Your task to perform on an android device: install app "Spotify: Music and Podcasts" Image 0: 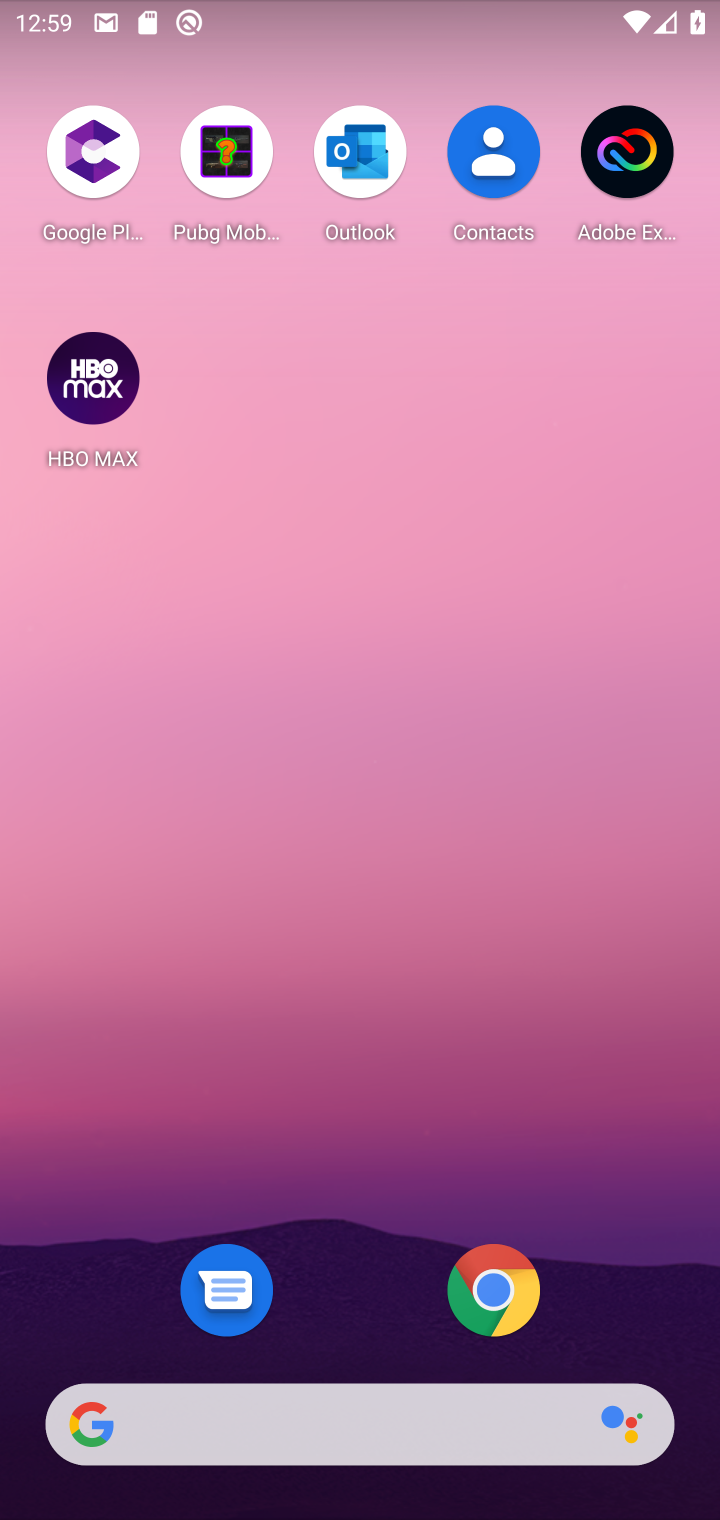
Step 0: press home button
Your task to perform on an android device: install app "Spotify: Music and Podcasts" Image 1: 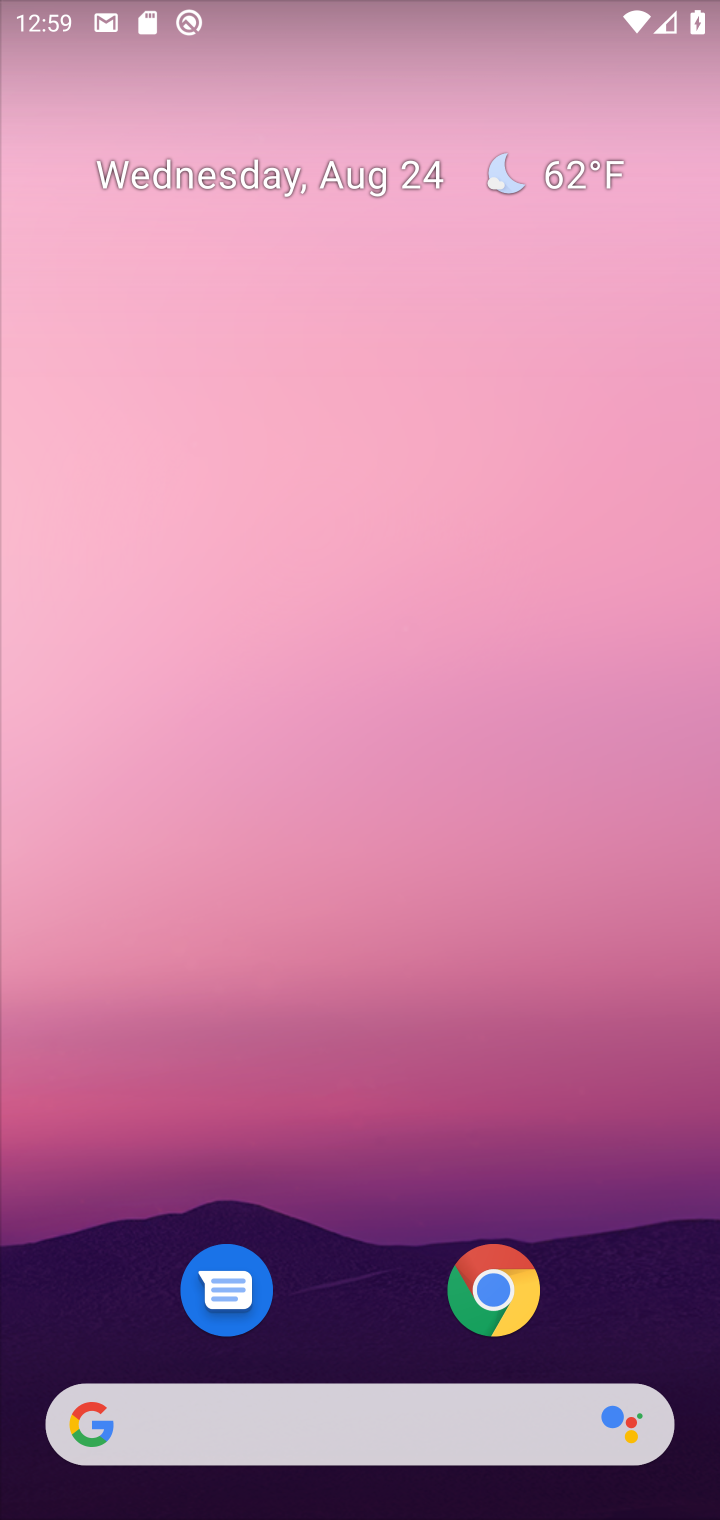
Step 1: drag from (331, 368) to (60, 681)
Your task to perform on an android device: install app "Spotify: Music and Podcasts" Image 2: 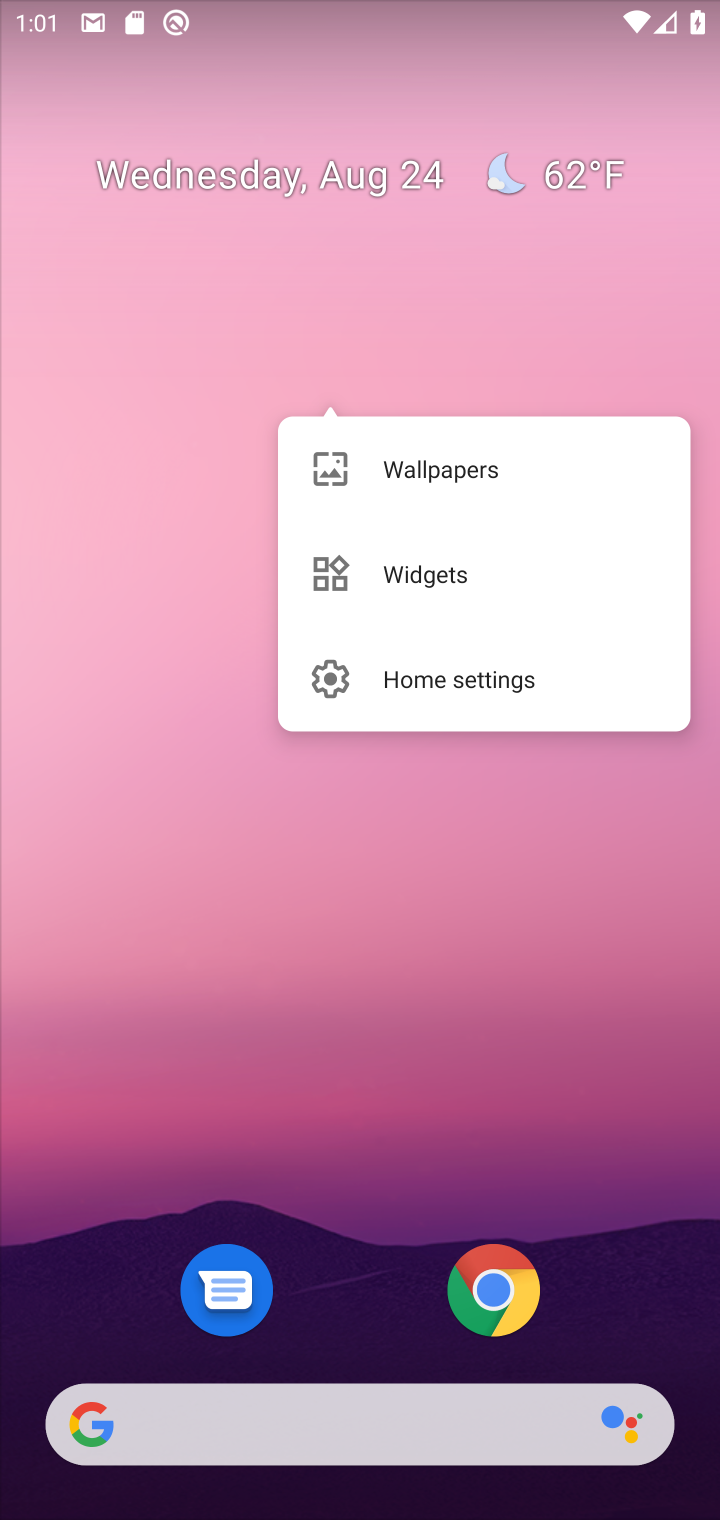
Step 2: drag from (341, 1219) to (377, 180)
Your task to perform on an android device: install app "Spotify: Music and Podcasts" Image 3: 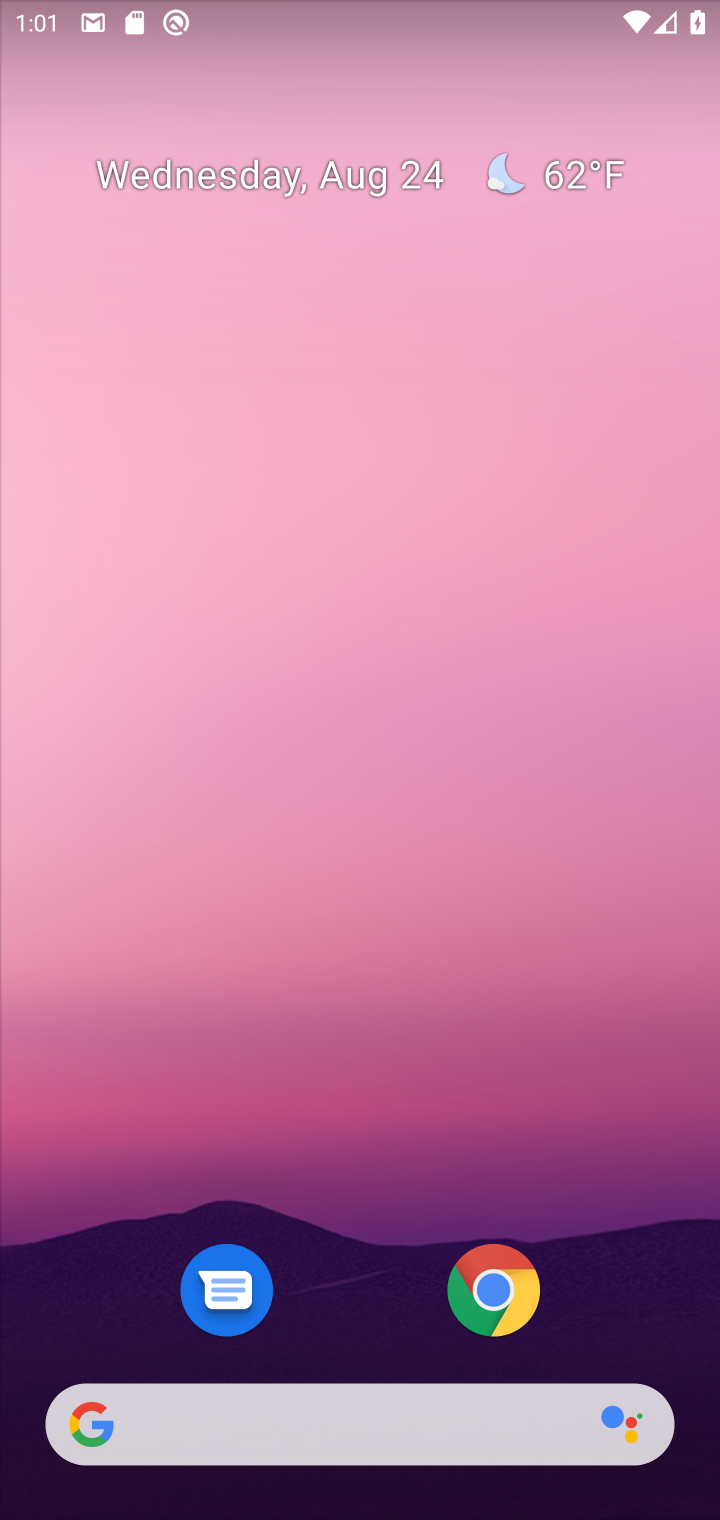
Step 3: drag from (355, 1313) to (441, 36)
Your task to perform on an android device: install app "Spotify: Music and Podcasts" Image 4: 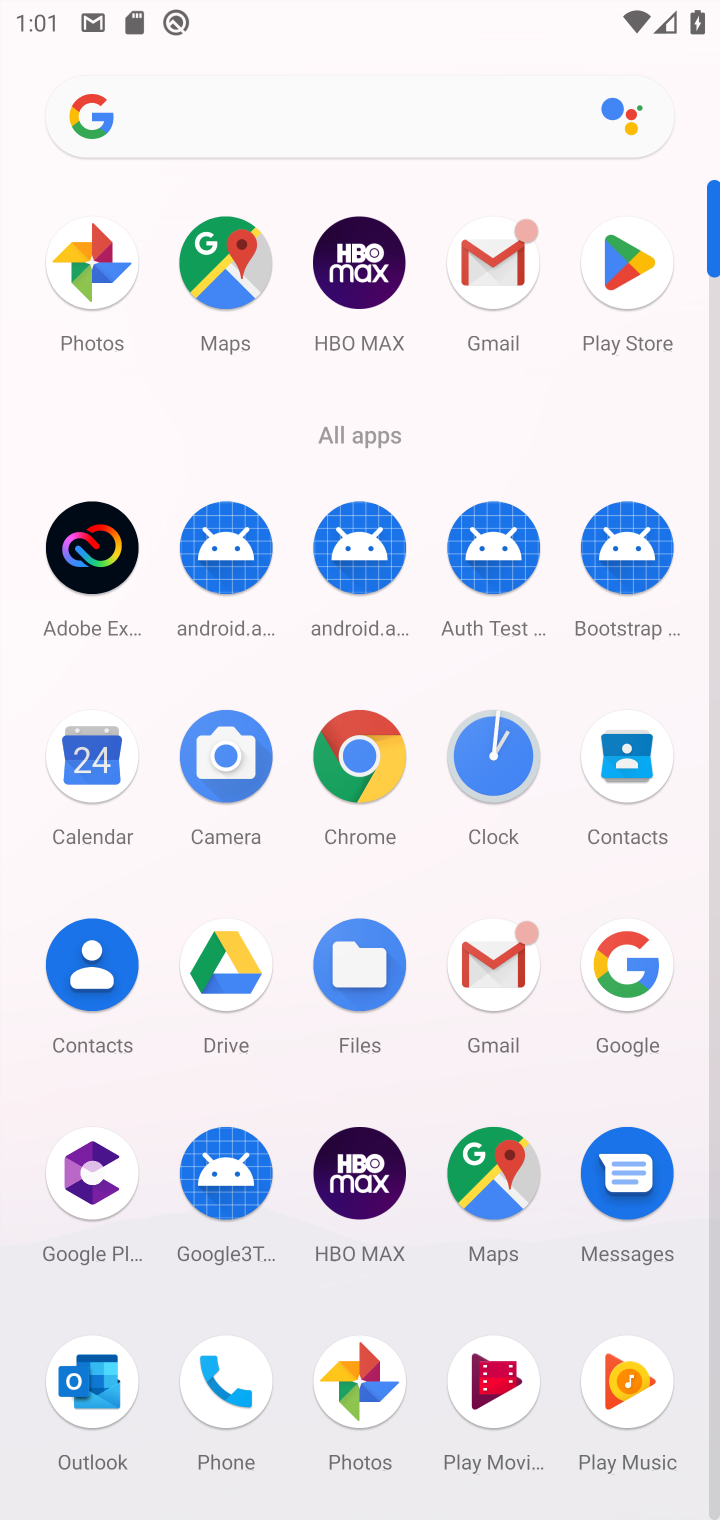
Step 4: click (636, 248)
Your task to perform on an android device: install app "Spotify: Music and Podcasts" Image 5: 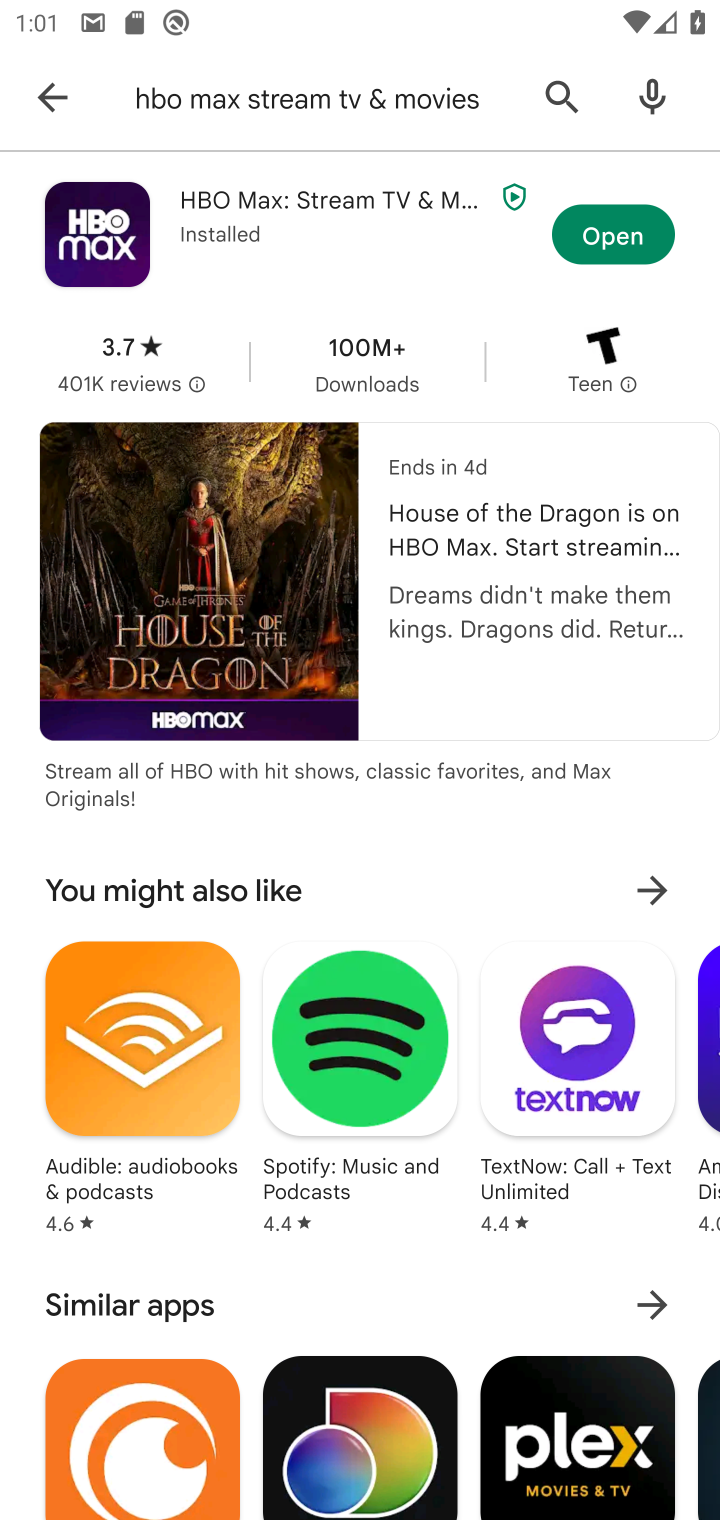
Step 5: click (48, 92)
Your task to perform on an android device: install app "Spotify: Music and Podcasts" Image 6: 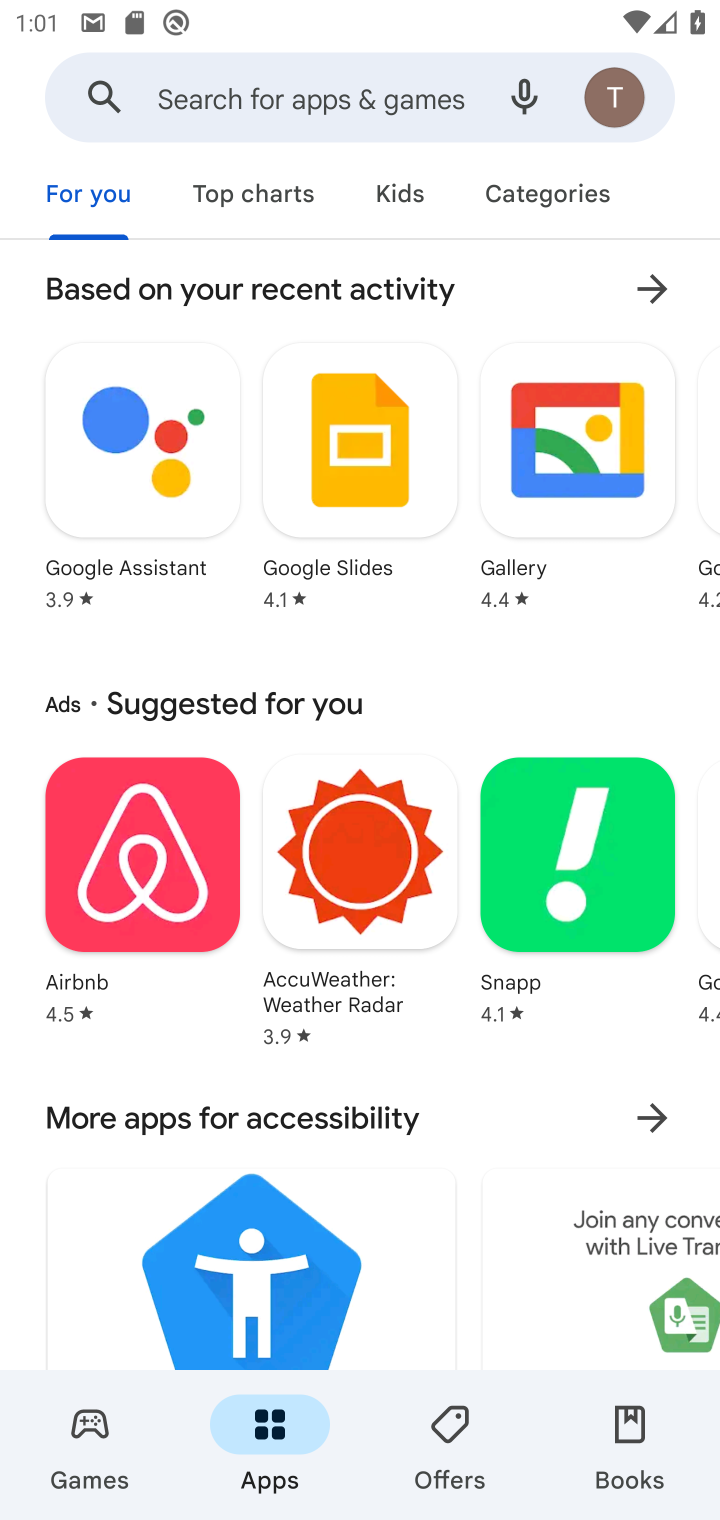
Step 6: click (388, 98)
Your task to perform on an android device: install app "Spotify: Music and Podcasts" Image 7: 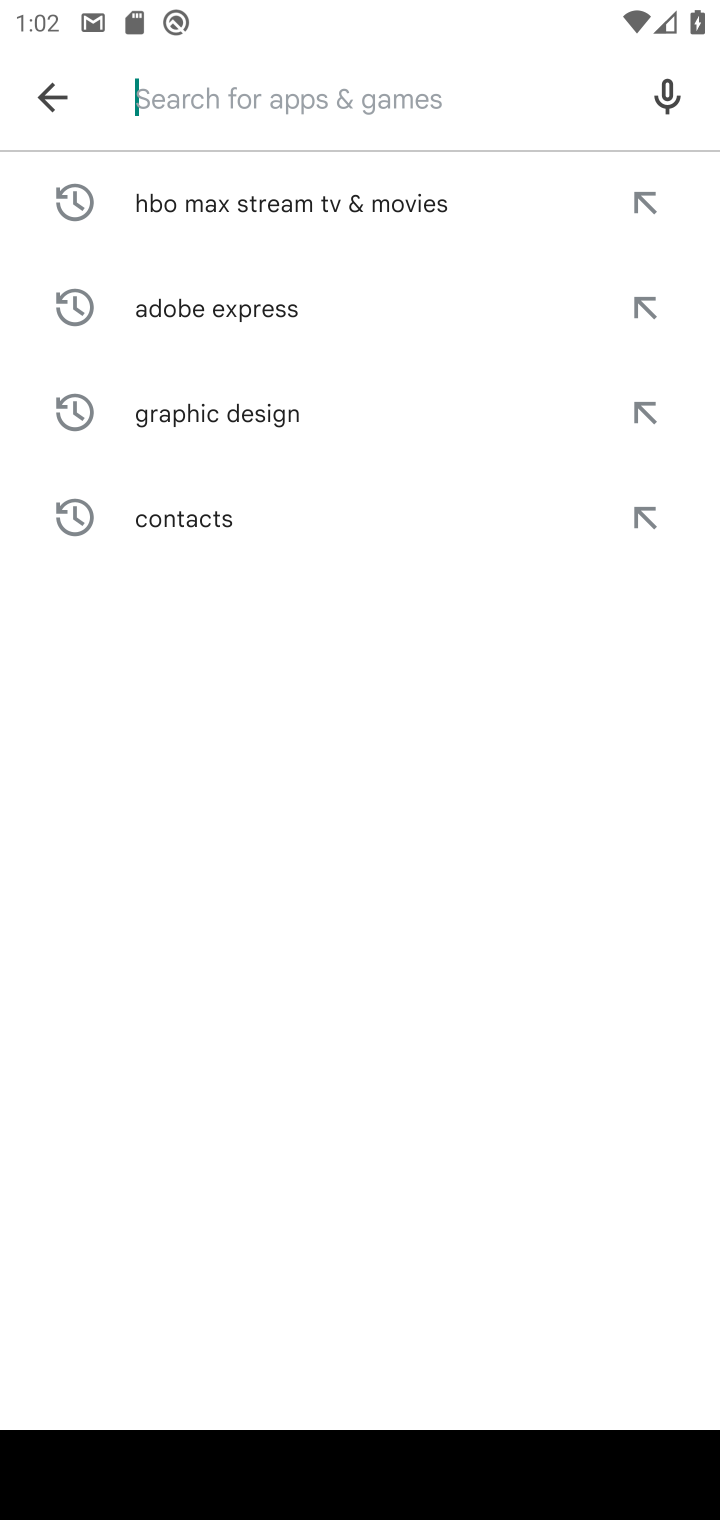
Step 7: type "Spotify"
Your task to perform on an android device: install app "Spotify: Music and Podcasts" Image 8: 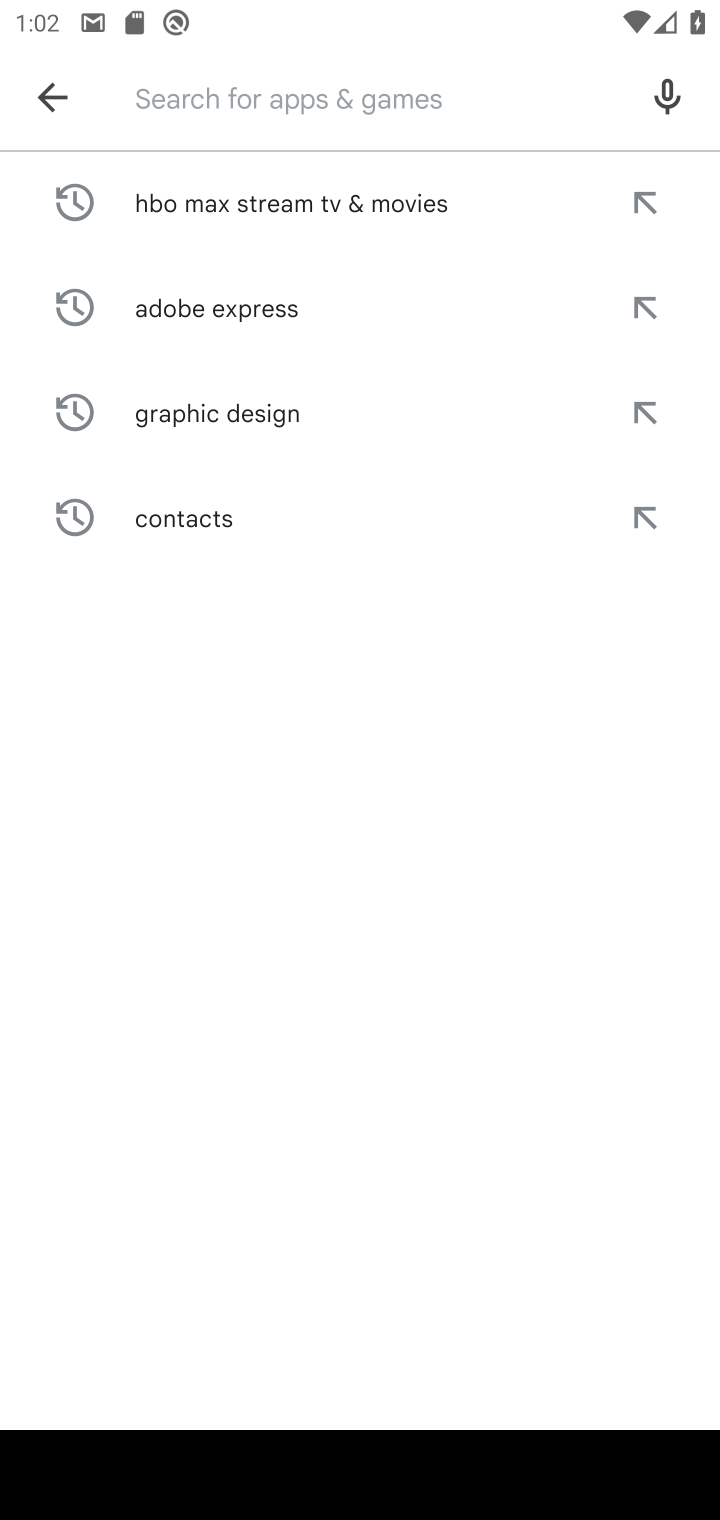
Step 8: click (42, 97)
Your task to perform on an android device: install app "Spotify: Music and Podcasts" Image 9: 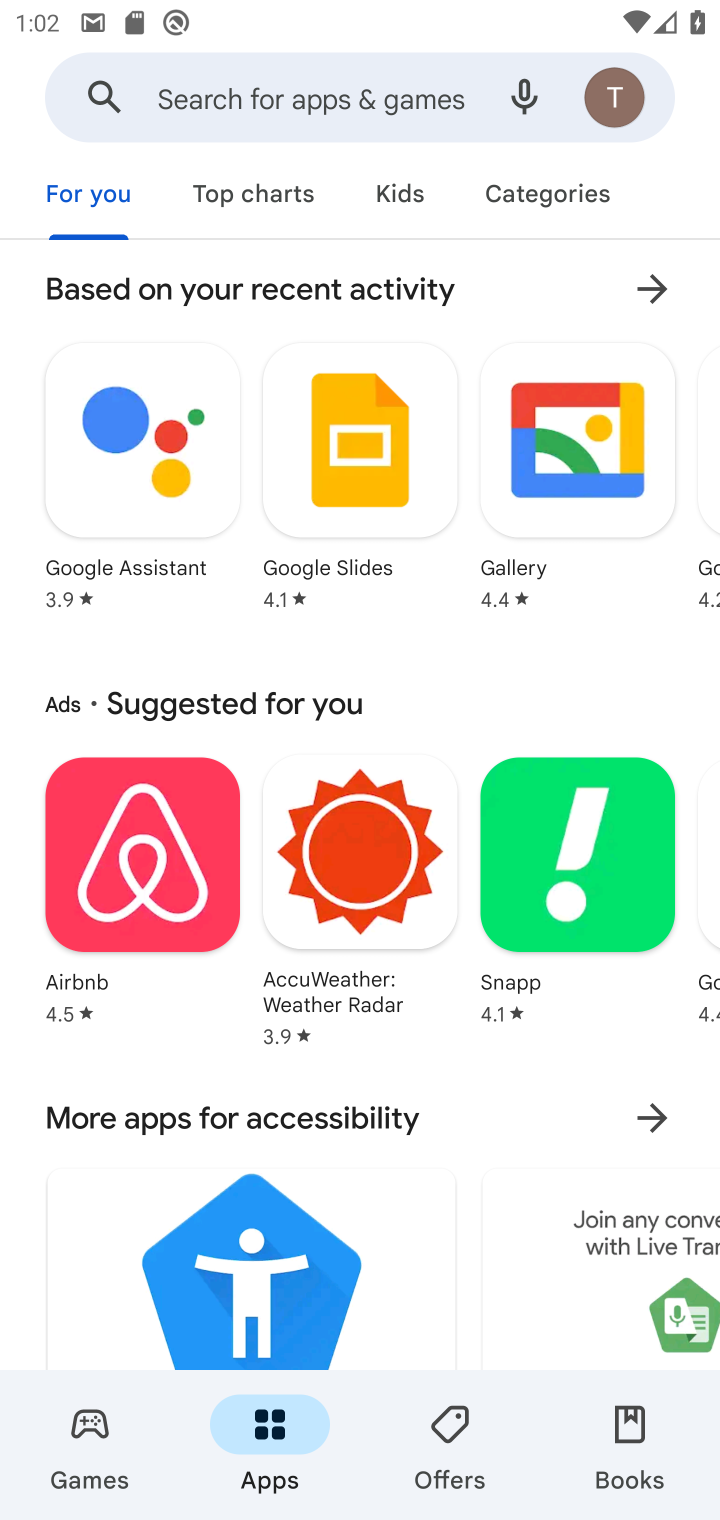
Step 9: click (364, 83)
Your task to perform on an android device: install app "Spotify: Music and Podcasts" Image 10: 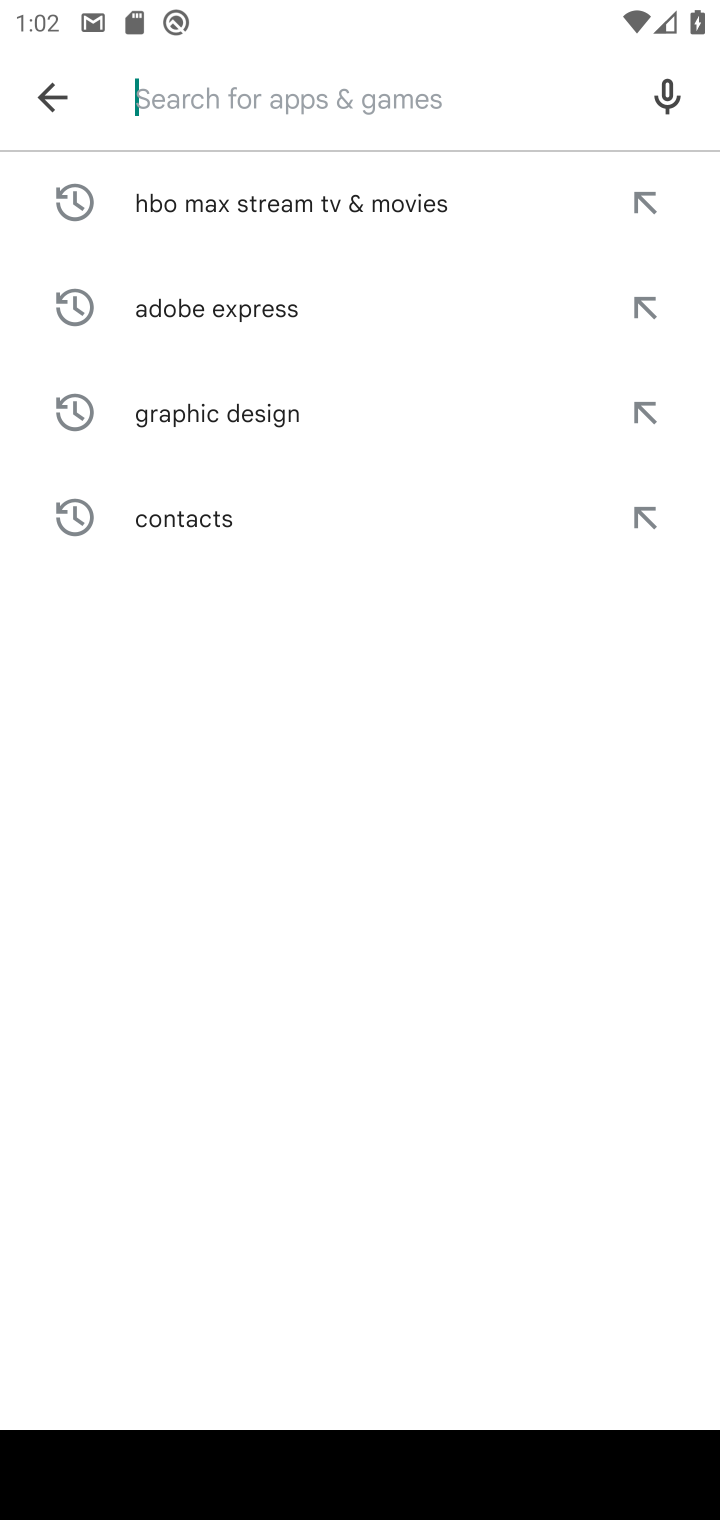
Step 10: type "Spotify"
Your task to perform on an android device: install app "Spotify: Music and Podcasts" Image 11: 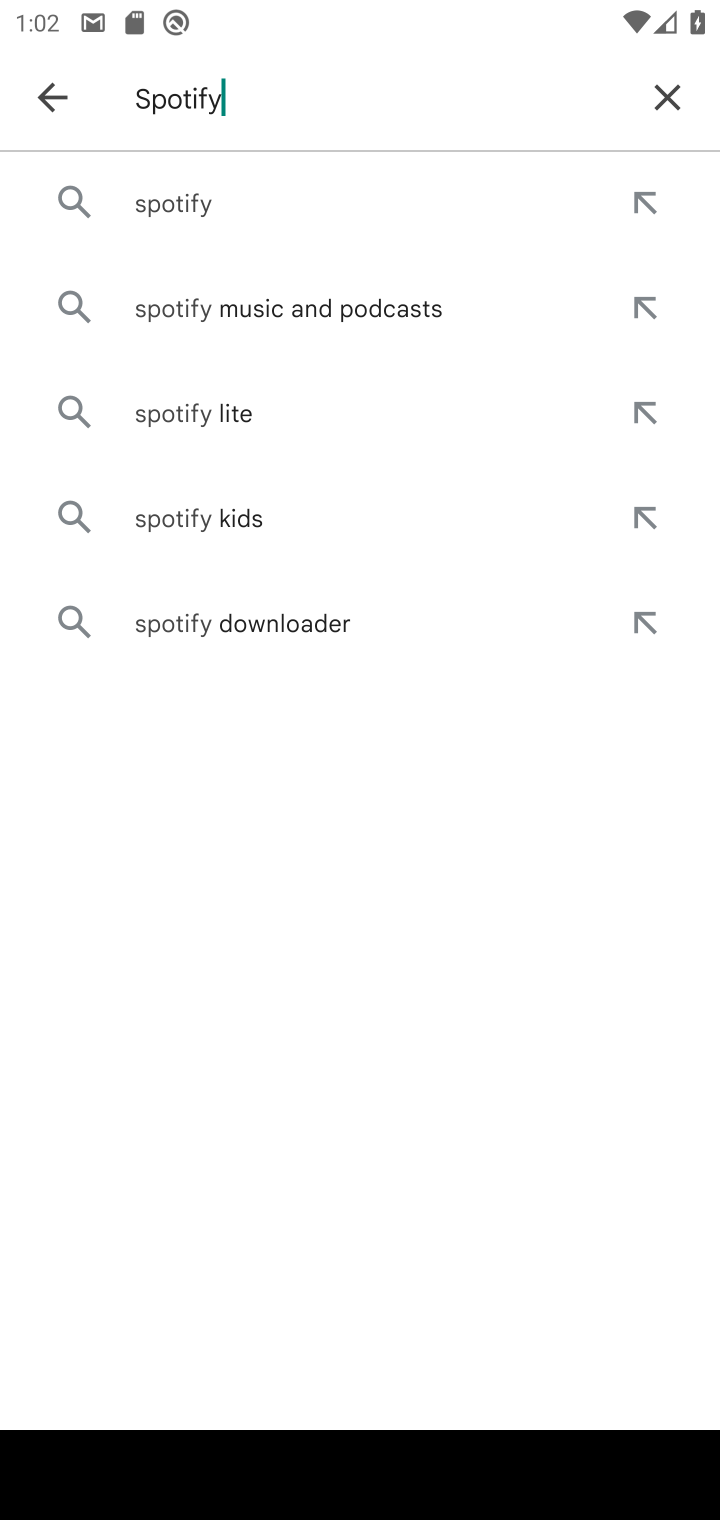
Step 11: click (167, 193)
Your task to perform on an android device: install app "Spotify: Music and Podcasts" Image 12: 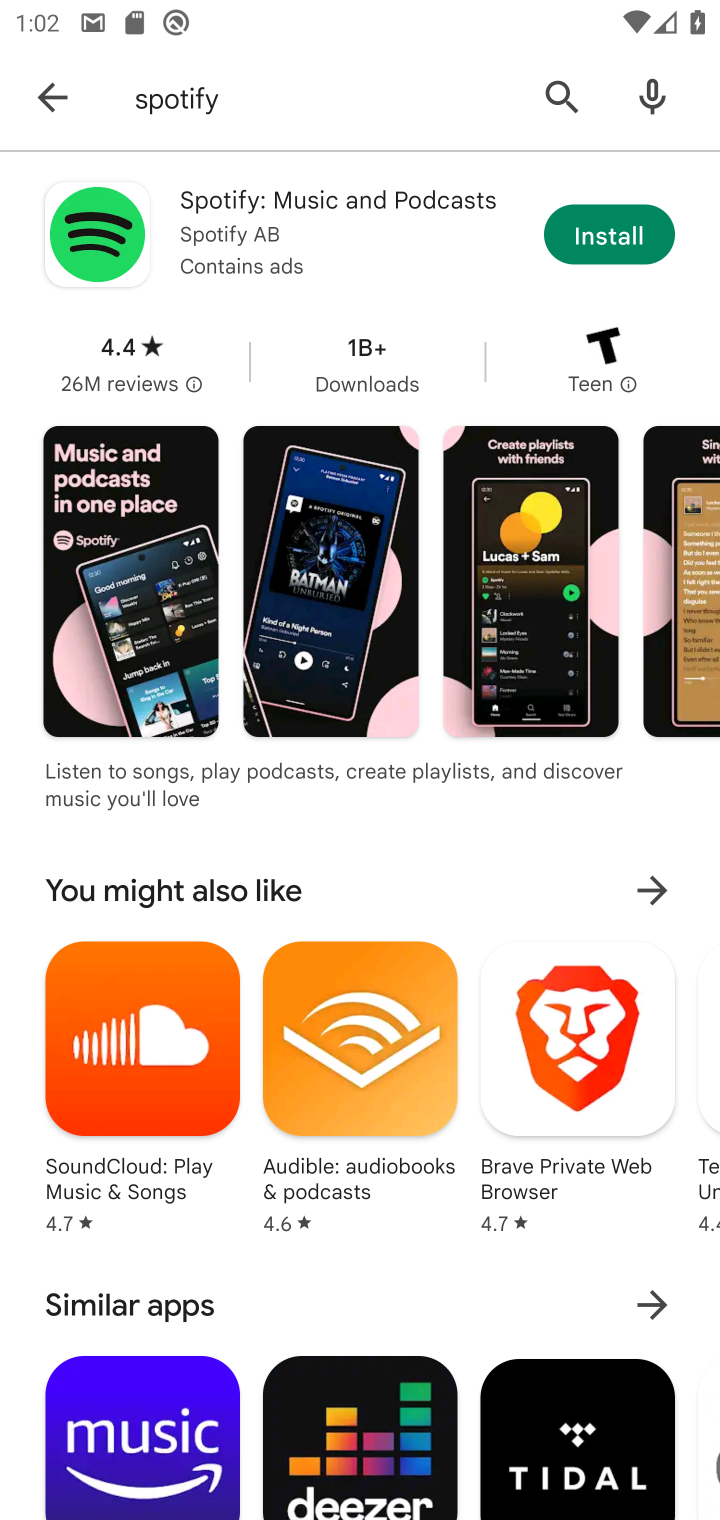
Step 12: click (597, 241)
Your task to perform on an android device: install app "Spotify: Music and Podcasts" Image 13: 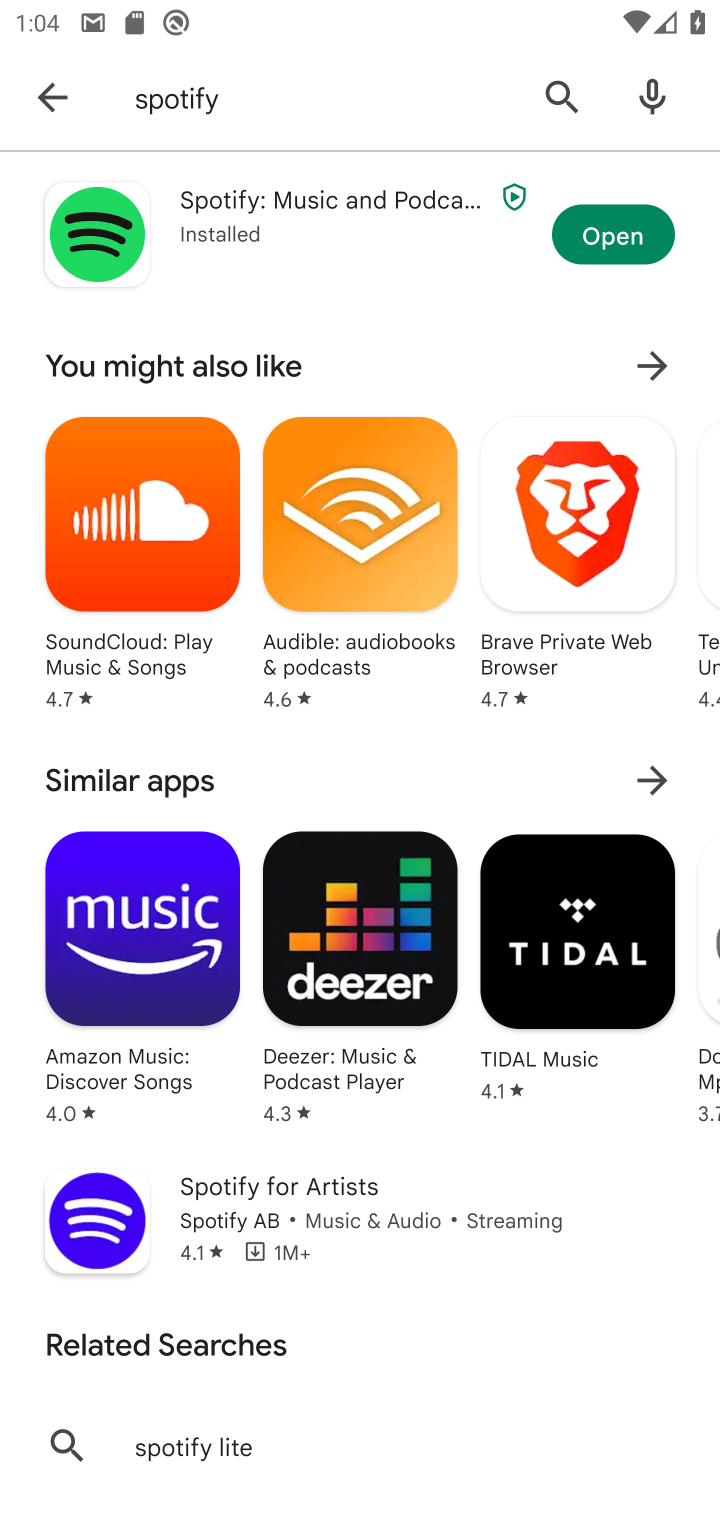
Step 13: click (597, 241)
Your task to perform on an android device: install app "Spotify: Music and Podcasts" Image 14: 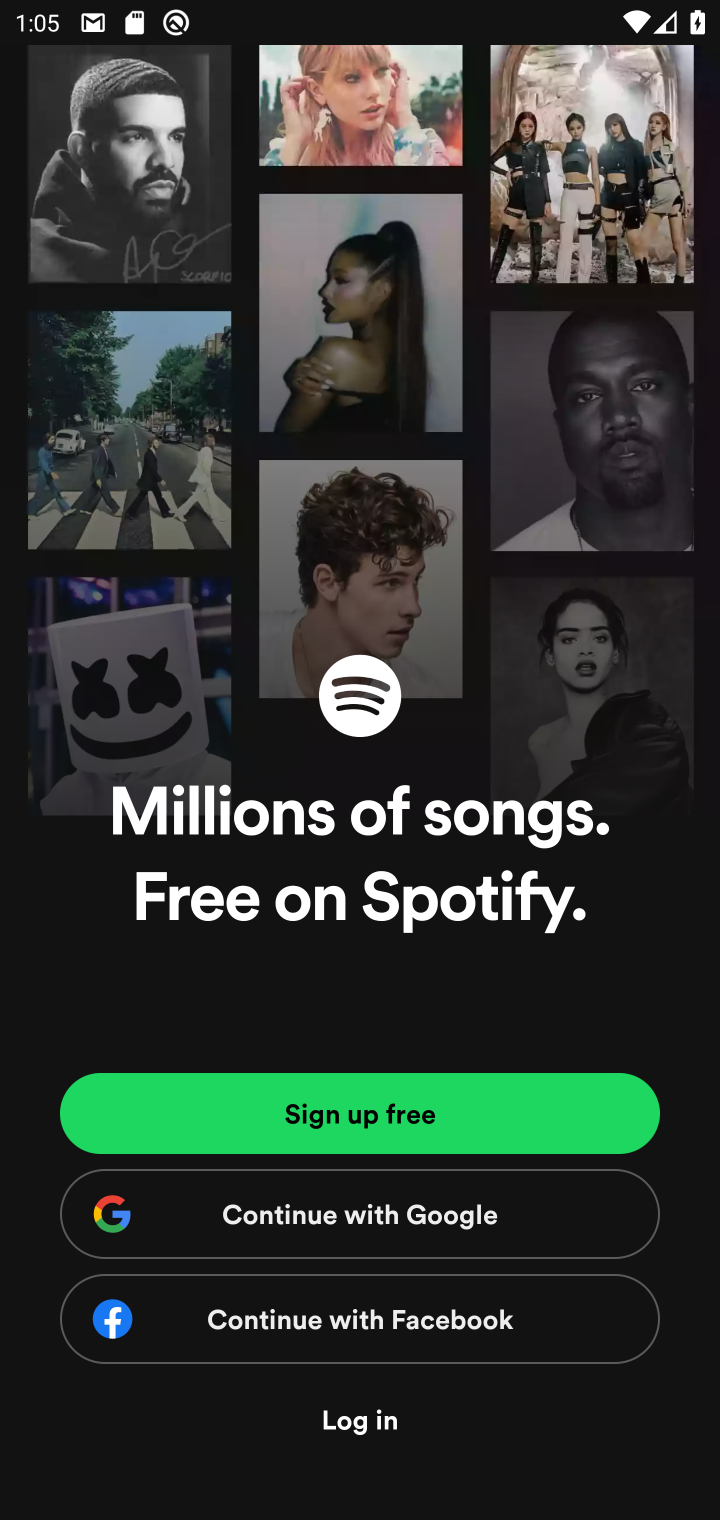
Step 14: task complete